Your task to perform on an android device: Open privacy settings Image 0: 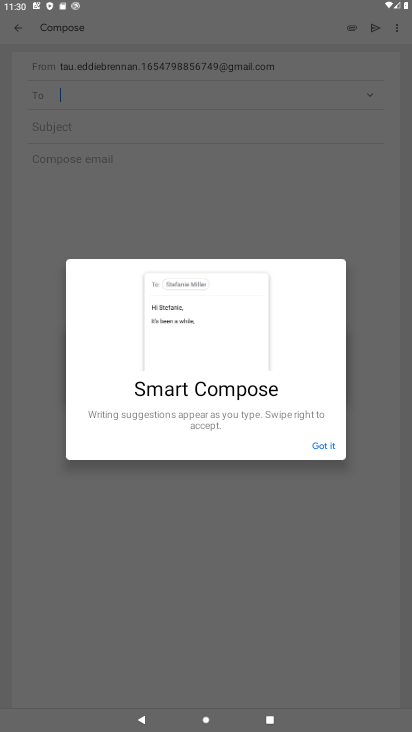
Step 0: press home button
Your task to perform on an android device: Open privacy settings Image 1: 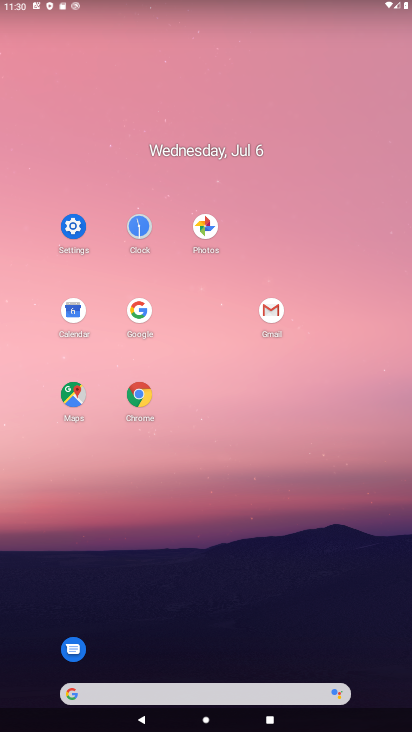
Step 1: click (82, 219)
Your task to perform on an android device: Open privacy settings Image 2: 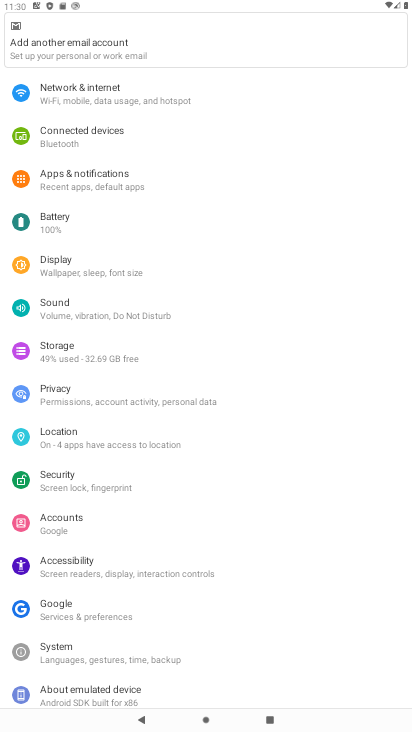
Step 2: click (189, 381)
Your task to perform on an android device: Open privacy settings Image 3: 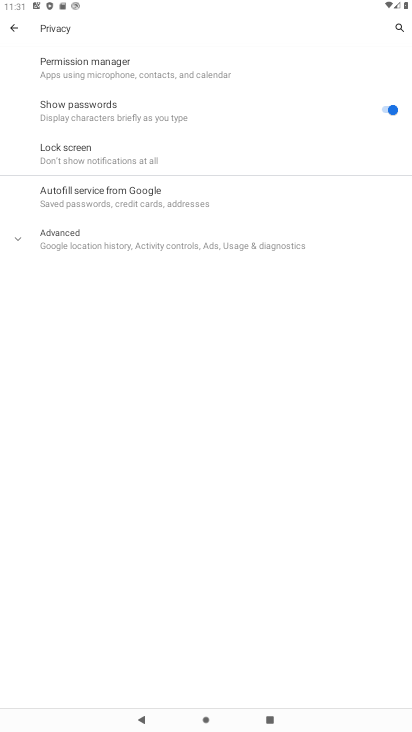
Step 3: task complete